Your task to perform on an android device: Play the last video I watched on Youtube Image 0: 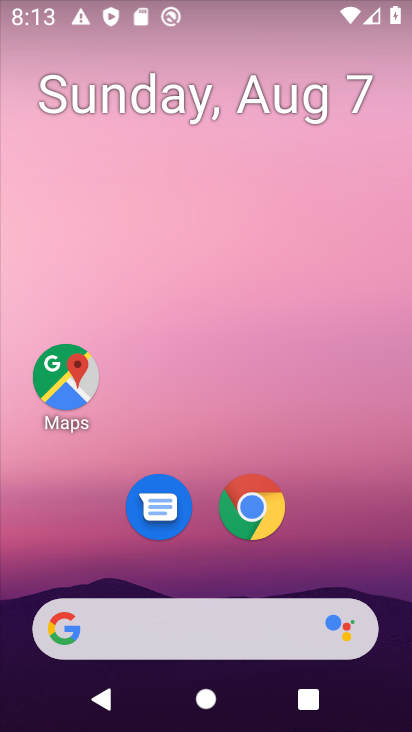
Step 0: drag from (198, 628) to (360, 27)
Your task to perform on an android device: Play the last video I watched on Youtube Image 1: 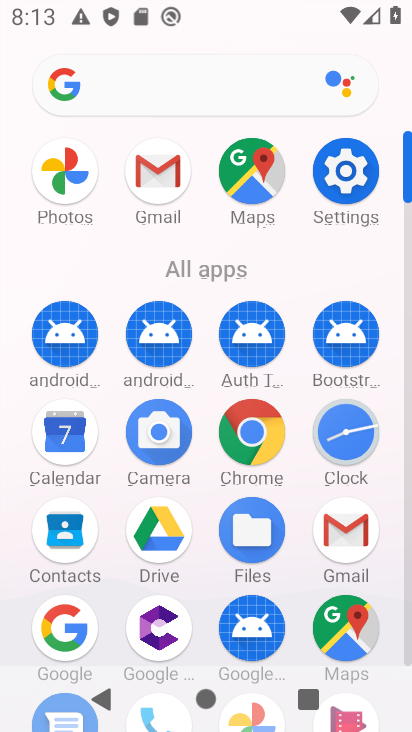
Step 1: drag from (298, 641) to (410, 73)
Your task to perform on an android device: Play the last video I watched on Youtube Image 2: 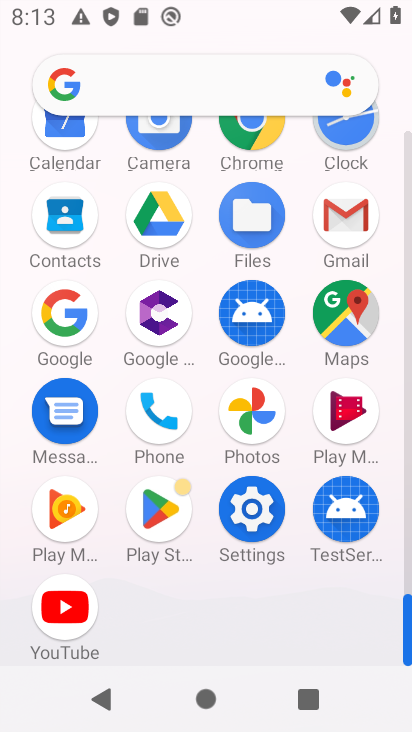
Step 2: click (68, 608)
Your task to perform on an android device: Play the last video I watched on Youtube Image 3: 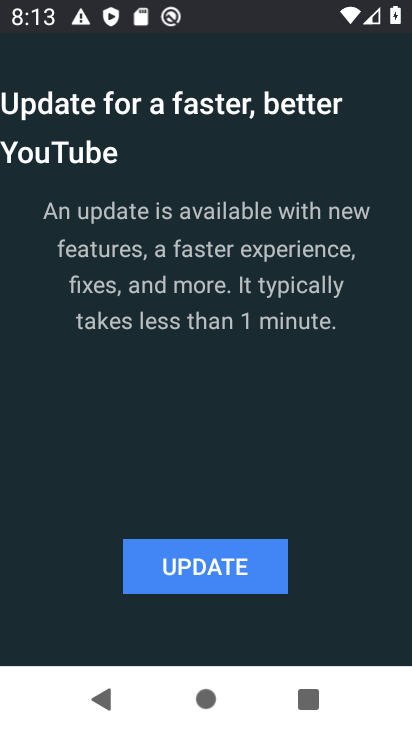
Step 3: click (227, 569)
Your task to perform on an android device: Play the last video I watched on Youtube Image 4: 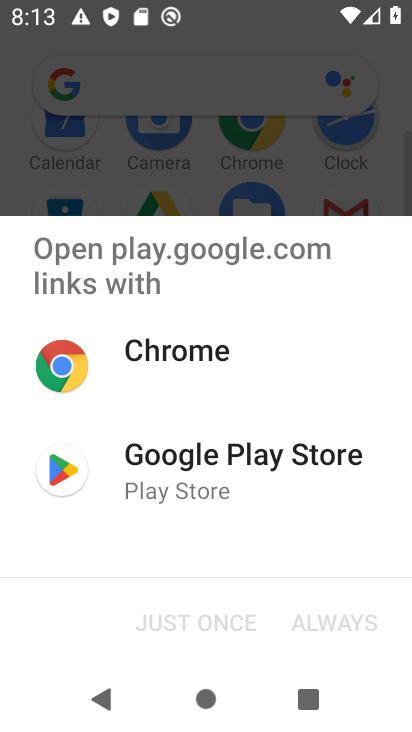
Step 4: click (193, 473)
Your task to perform on an android device: Play the last video I watched on Youtube Image 5: 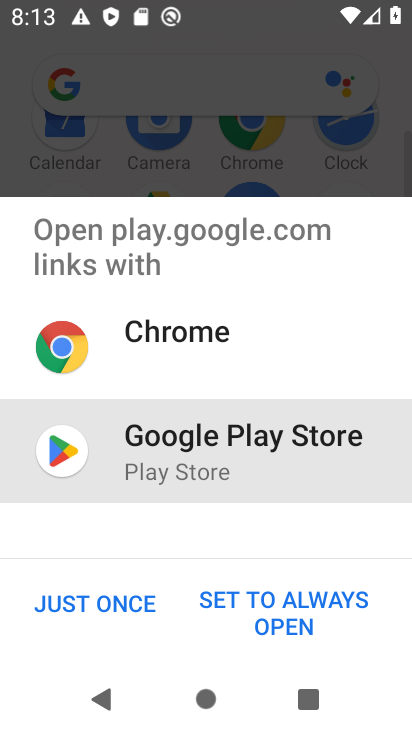
Step 5: click (103, 605)
Your task to perform on an android device: Play the last video I watched on Youtube Image 6: 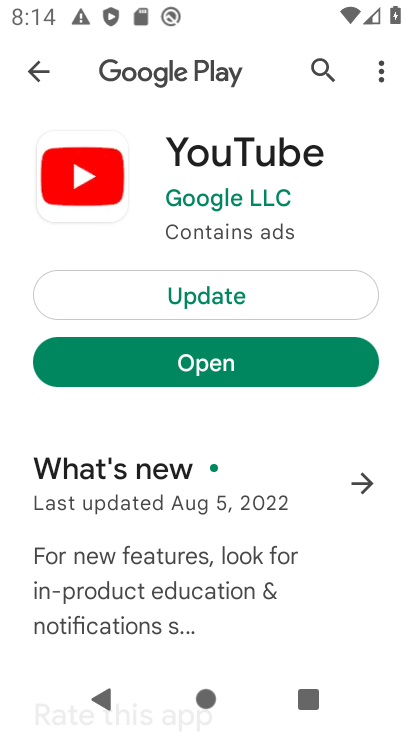
Step 6: click (248, 286)
Your task to perform on an android device: Play the last video I watched on Youtube Image 7: 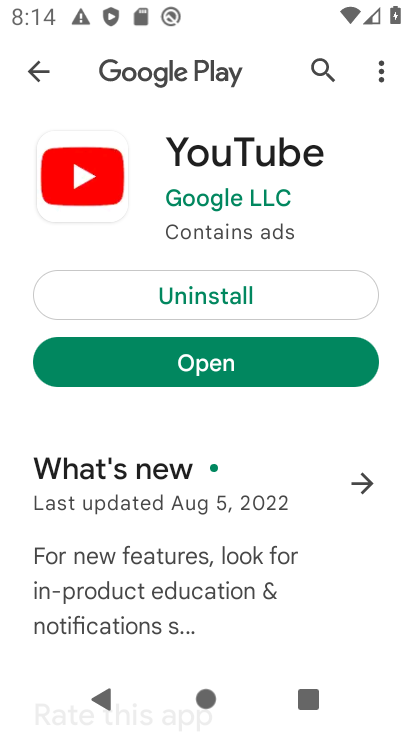
Step 7: click (232, 368)
Your task to perform on an android device: Play the last video I watched on Youtube Image 8: 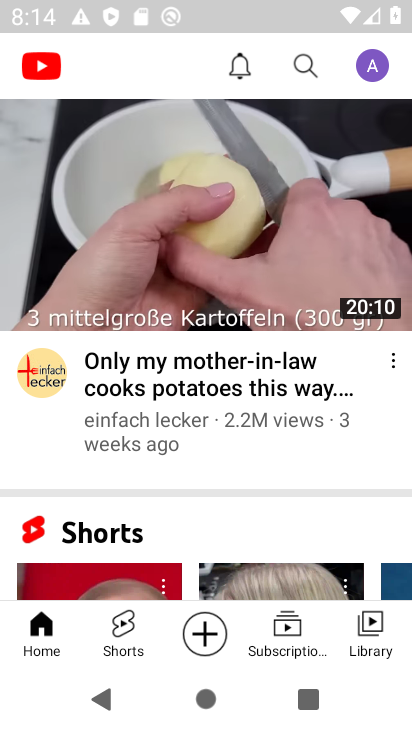
Step 8: click (365, 631)
Your task to perform on an android device: Play the last video I watched on Youtube Image 9: 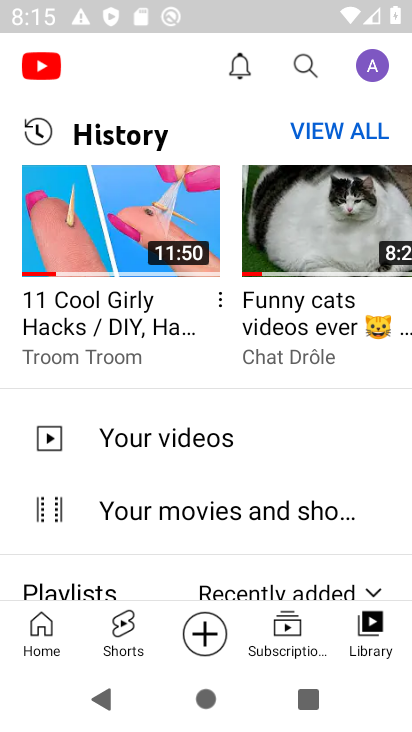
Step 9: click (131, 200)
Your task to perform on an android device: Play the last video I watched on Youtube Image 10: 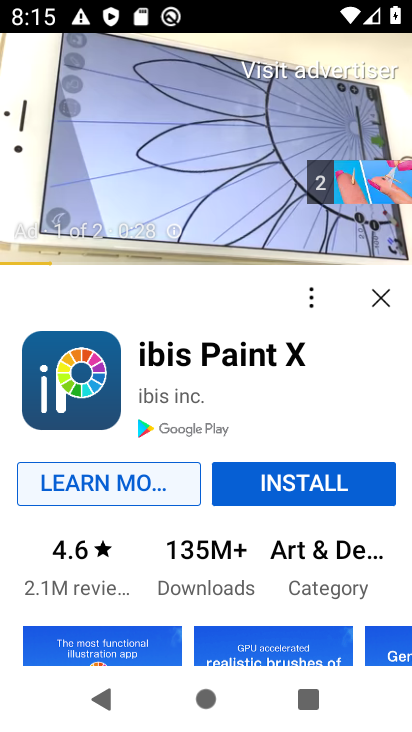
Step 10: click (228, 107)
Your task to perform on an android device: Play the last video I watched on Youtube Image 11: 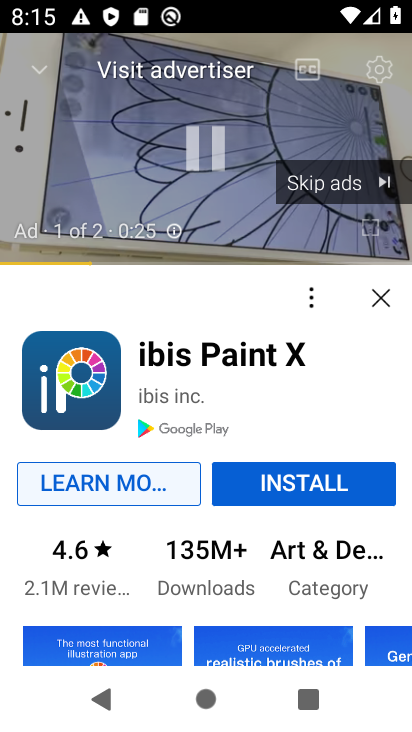
Step 11: click (335, 180)
Your task to perform on an android device: Play the last video I watched on Youtube Image 12: 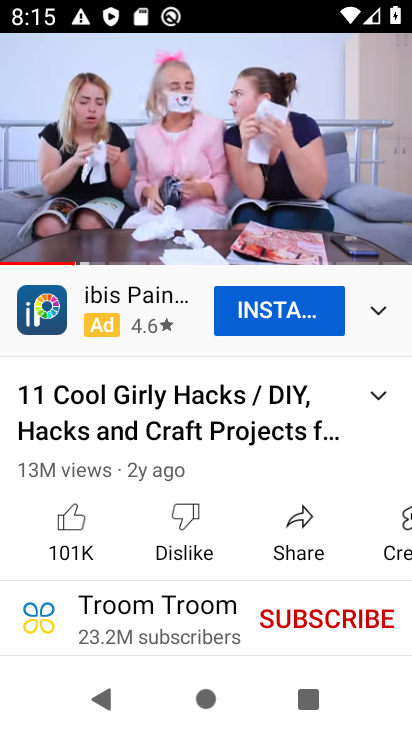
Step 12: click (188, 104)
Your task to perform on an android device: Play the last video I watched on Youtube Image 13: 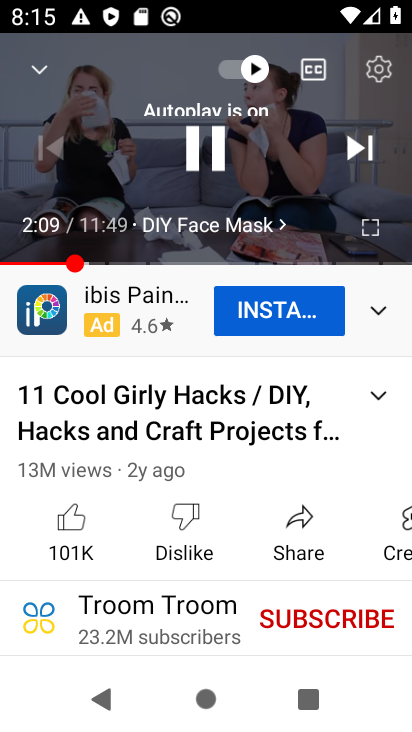
Step 13: click (203, 156)
Your task to perform on an android device: Play the last video I watched on Youtube Image 14: 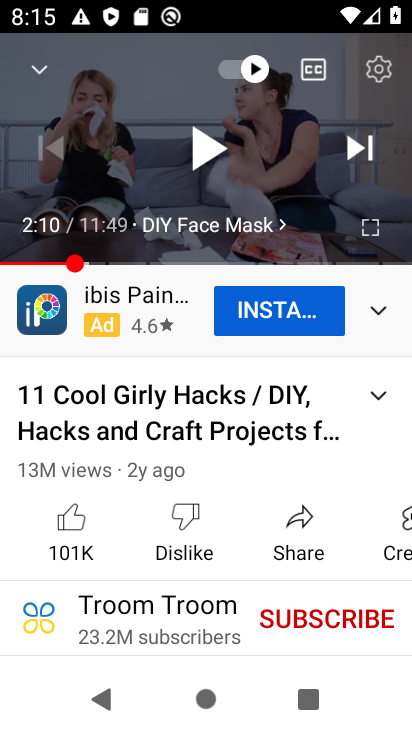
Step 14: task complete